Your task to perform on an android device: Do I have any events today? Image 0: 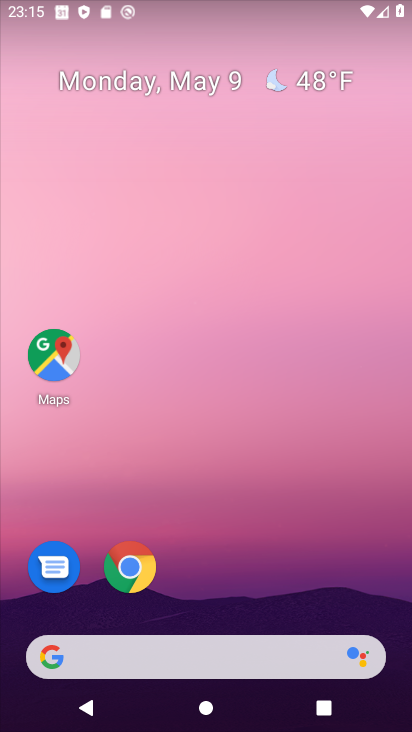
Step 0: drag from (260, 581) to (283, 11)
Your task to perform on an android device: Do I have any events today? Image 1: 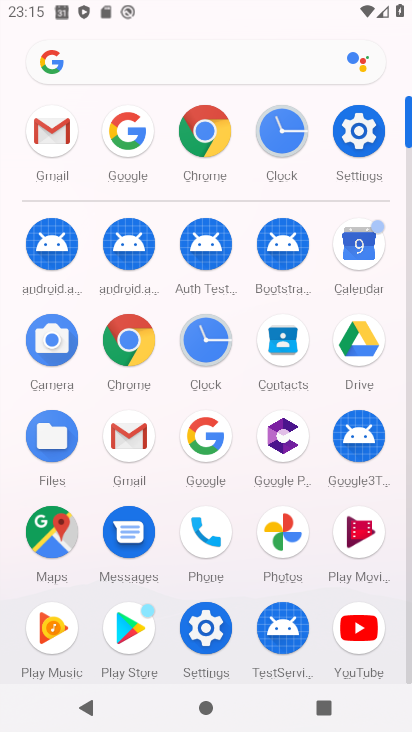
Step 1: click (356, 247)
Your task to perform on an android device: Do I have any events today? Image 2: 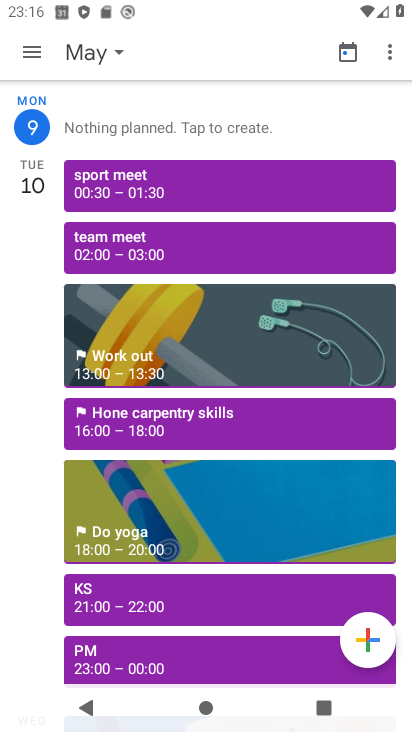
Step 2: click (104, 46)
Your task to perform on an android device: Do I have any events today? Image 3: 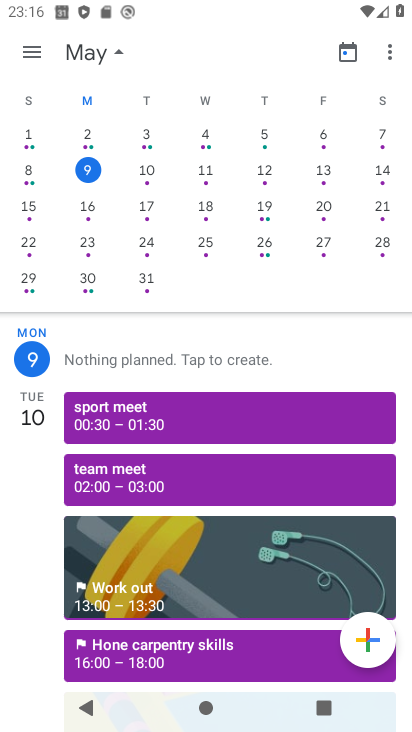
Step 3: click (93, 169)
Your task to perform on an android device: Do I have any events today? Image 4: 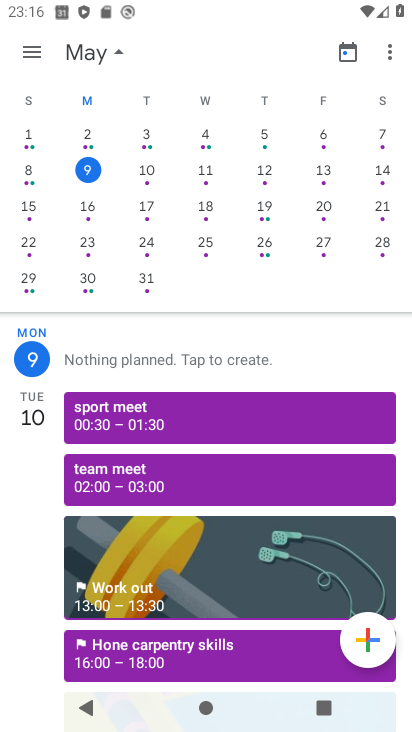
Step 4: click (89, 169)
Your task to perform on an android device: Do I have any events today? Image 5: 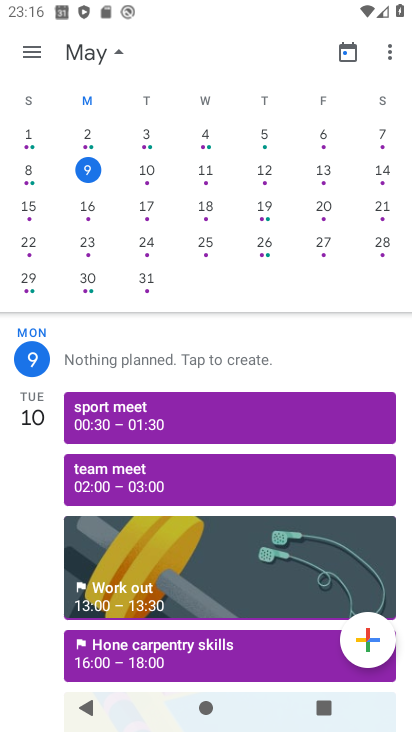
Step 5: click (161, 355)
Your task to perform on an android device: Do I have any events today? Image 6: 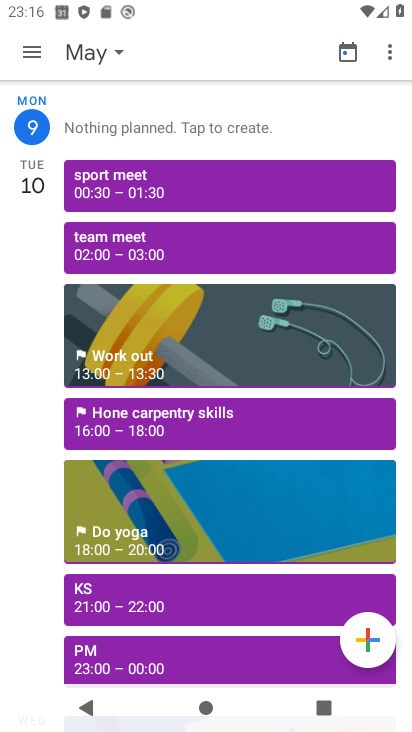
Step 6: click (219, 130)
Your task to perform on an android device: Do I have any events today? Image 7: 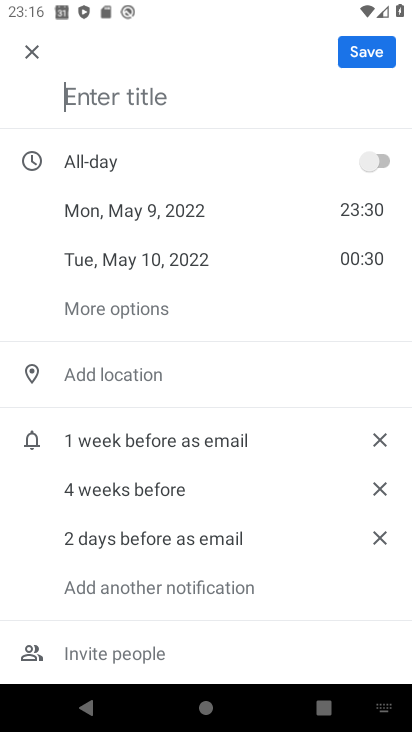
Step 7: task complete